Your task to perform on an android device: Open Android settings Image 0: 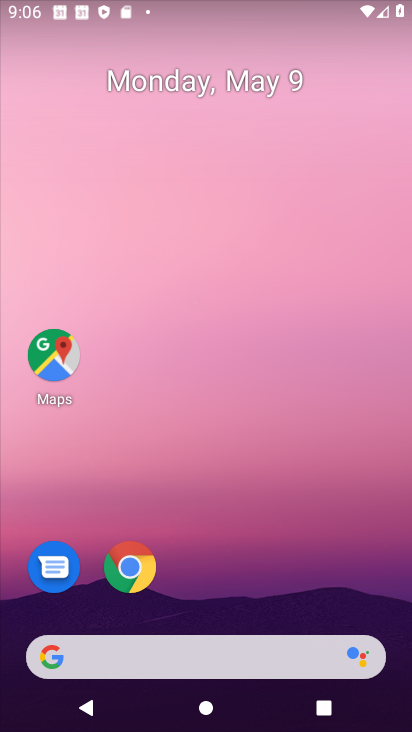
Step 0: drag from (206, 649) to (104, 42)
Your task to perform on an android device: Open Android settings Image 1: 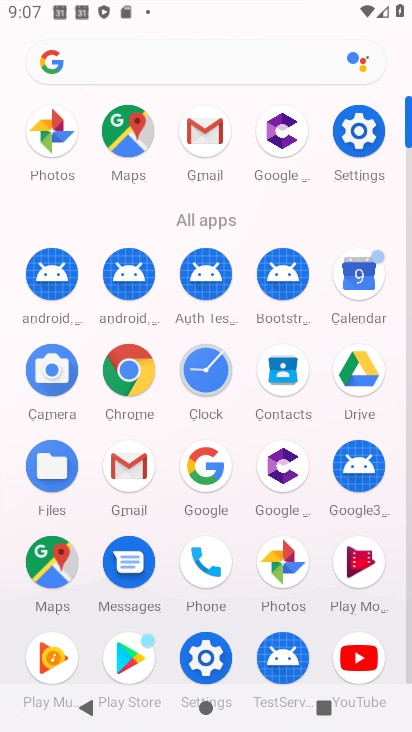
Step 1: click (369, 148)
Your task to perform on an android device: Open Android settings Image 2: 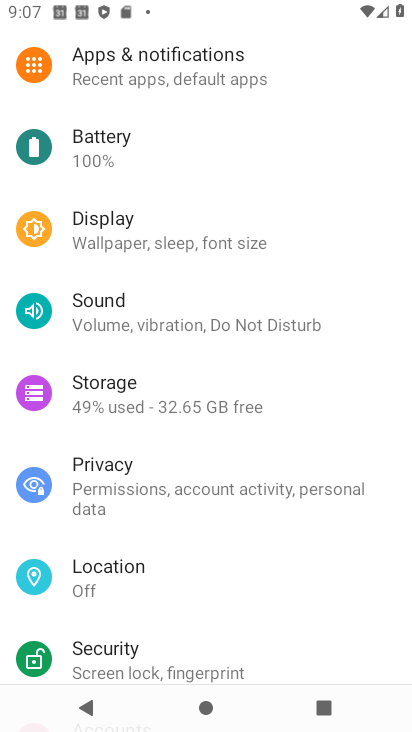
Step 2: drag from (170, 622) to (277, 10)
Your task to perform on an android device: Open Android settings Image 3: 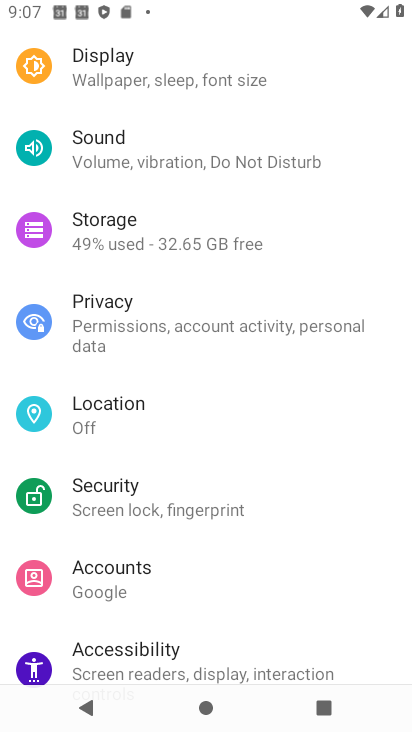
Step 3: drag from (173, 559) to (167, 73)
Your task to perform on an android device: Open Android settings Image 4: 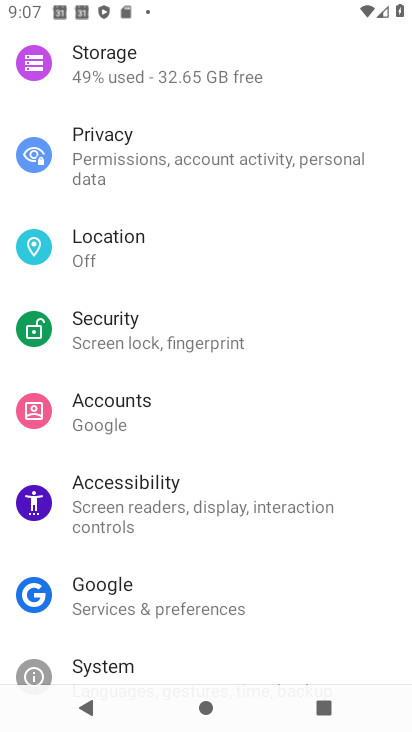
Step 4: drag from (165, 614) to (107, 41)
Your task to perform on an android device: Open Android settings Image 5: 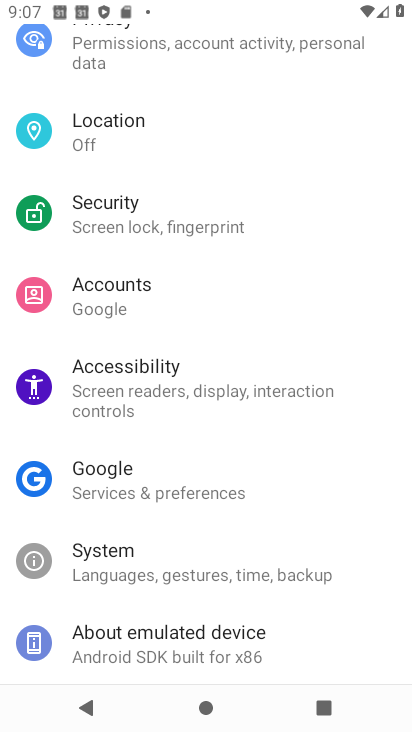
Step 5: click (195, 649)
Your task to perform on an android device: Open Android settings Image 6: 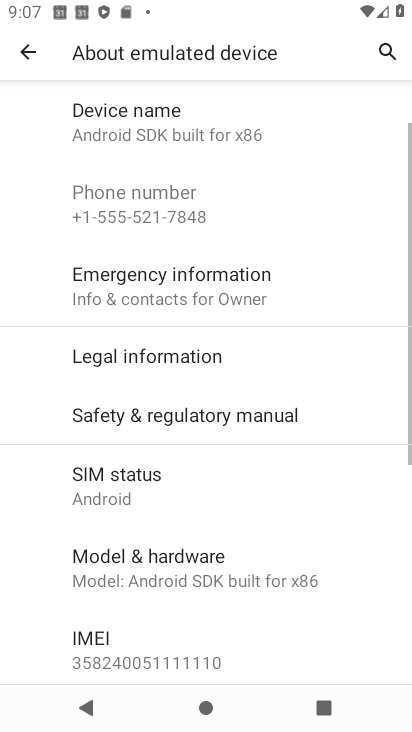
Step 6: drag from (205, 609) to (175, 73)
Your task to perform on an android device: Open Android settings Image 7: 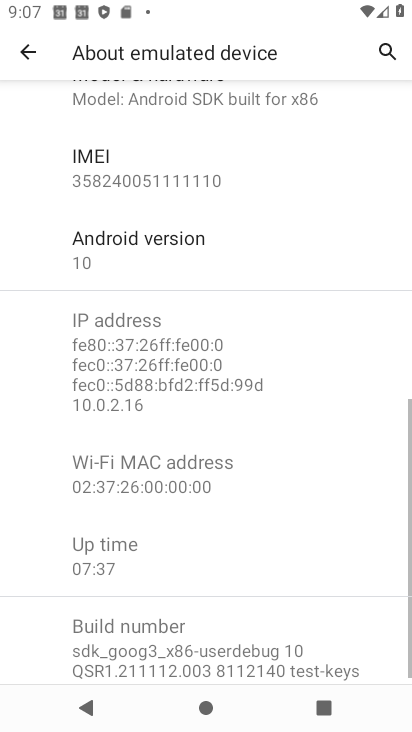
Step 7: click (121, 229)
Your task to perform on an android device: Open Android settings Image 8: 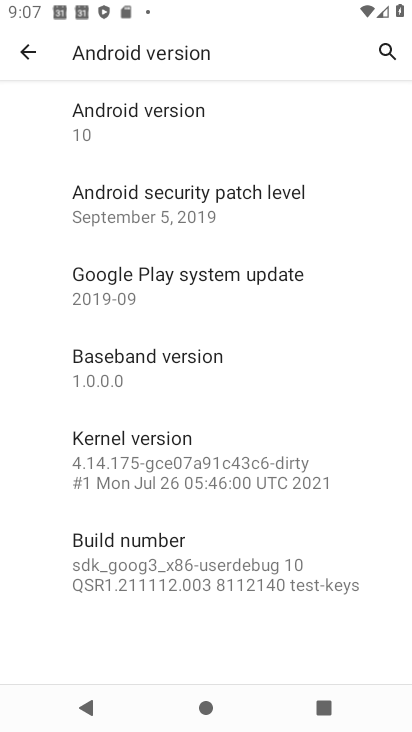
Step 8: task complete